Your task to perform on an android device: toggle wifi Image 0: 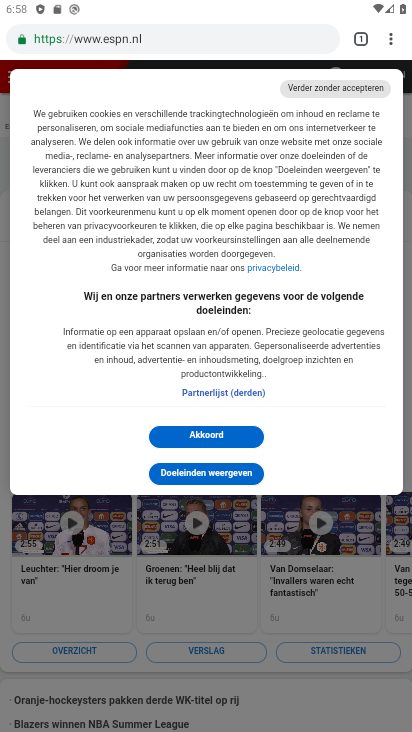
Step 0: press home button
Your task to perform on an android device: toggle wifi Image 1: 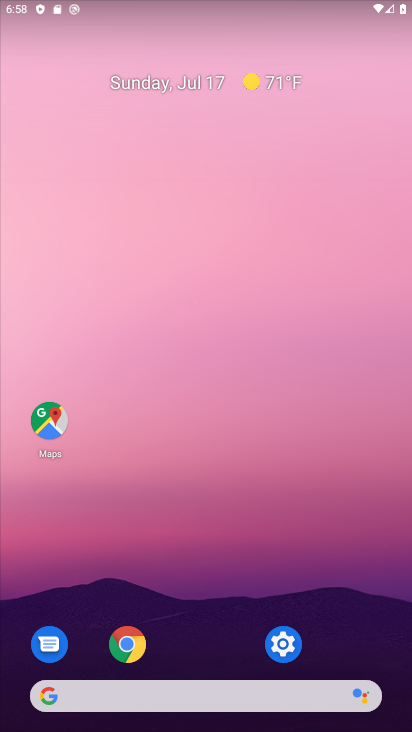
Step 1: click (286, 643)
Your task to perform on an android device: toggle wifi Image 2: 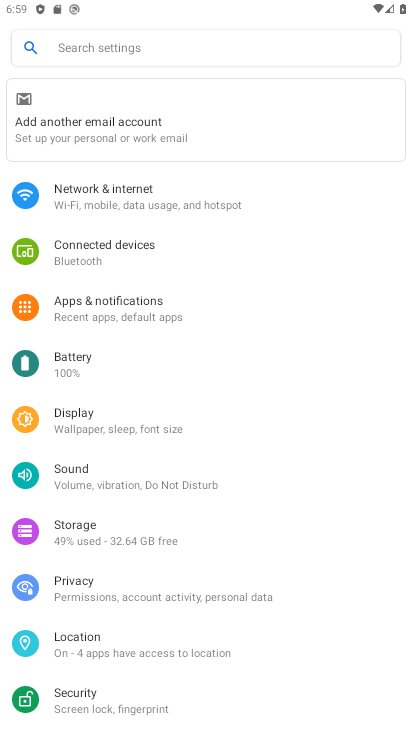
Step 2: click (144, 197)
Your task to perform on an android device: toggle wifi Image 3: 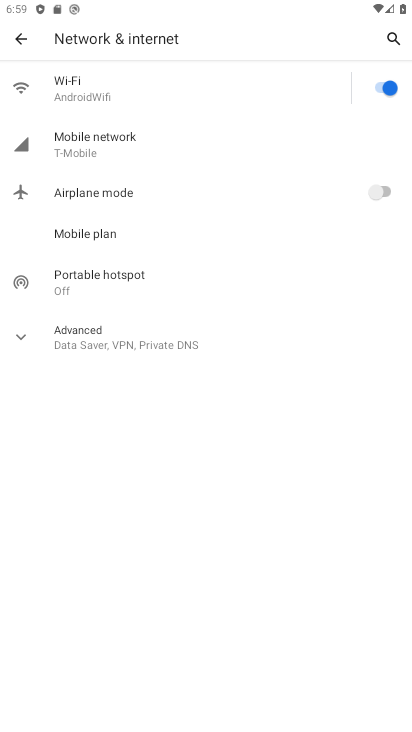
Step 3: click (155, 72)
Your task to perform on an android device: toggle wifi Image 4: 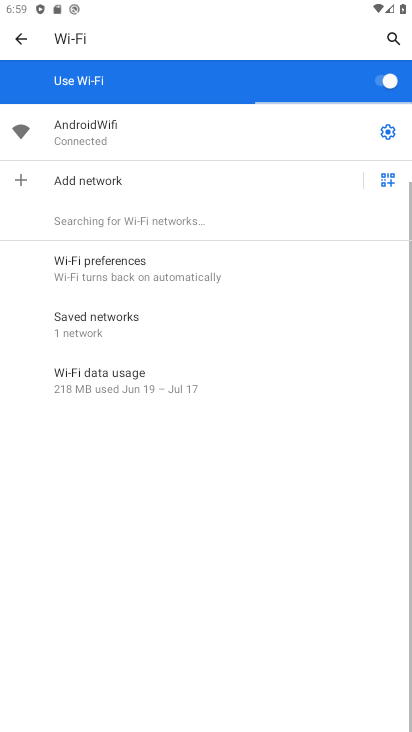
Step 4: task complete